Your task to perform on an android device: find photos in the google photos app Image 0: 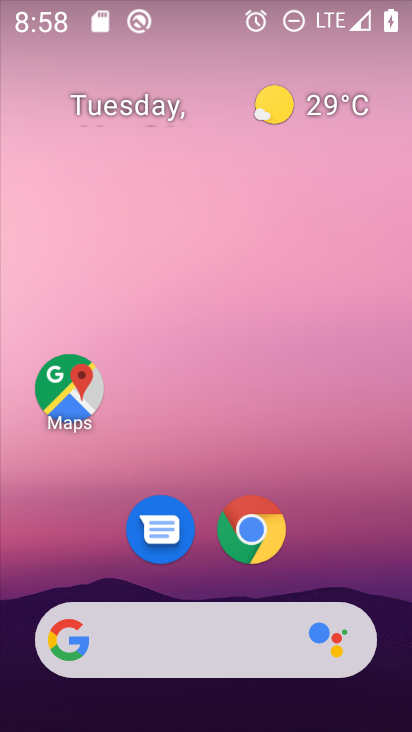
Step 0: drag from (391, 627) to (292, 98)
Your task to perform on an android device: find photos in the google photos app Image 1: 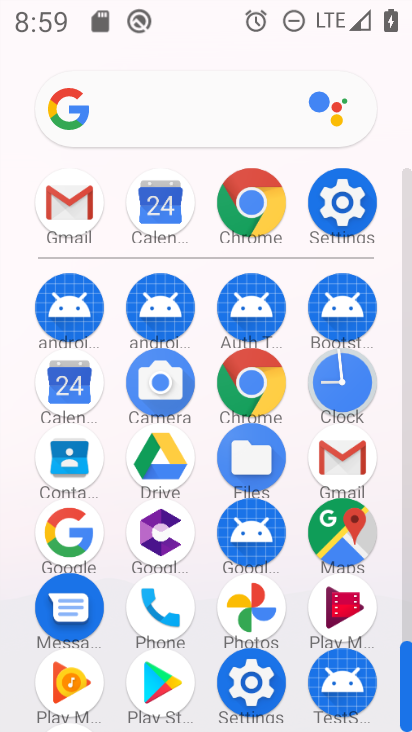
Step 1: click (256, 618)
Your task to perform on an android device: find photos in the google photos app Image 2: 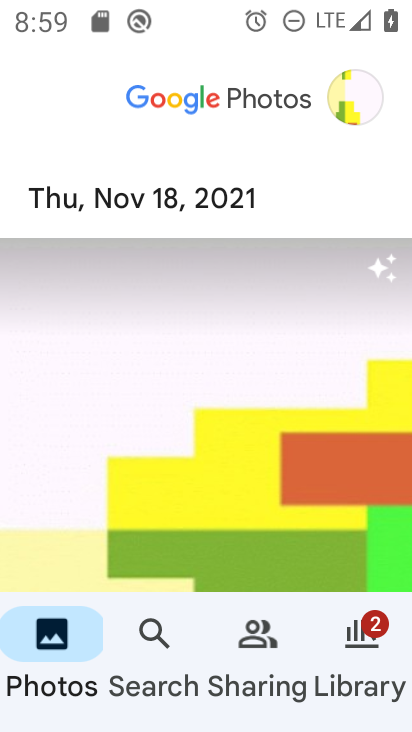
Step 2: task complete